Your task to perform on an android device: Open calendar and show me the first week of next month Image 0: 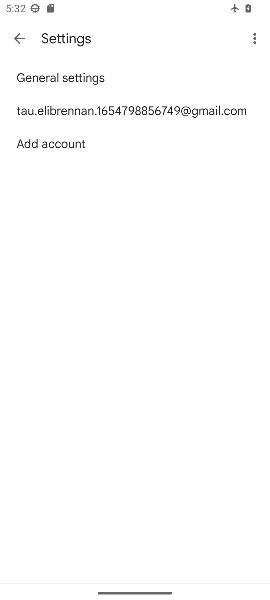
Step 0: press home button
Your task to perform on an android device: Open calendar and show me the first week of next month Image 1: 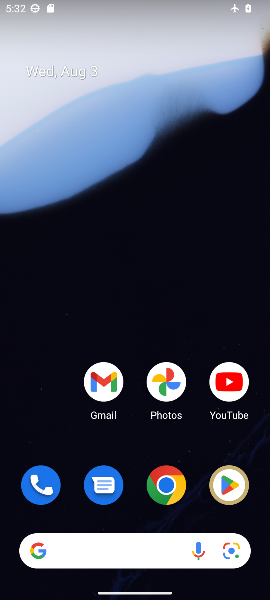
Step 1: drag from (141, 520) to (260, 11)
Your task to perform on an android device: Open calendar and show me the first week of next month Image 2: 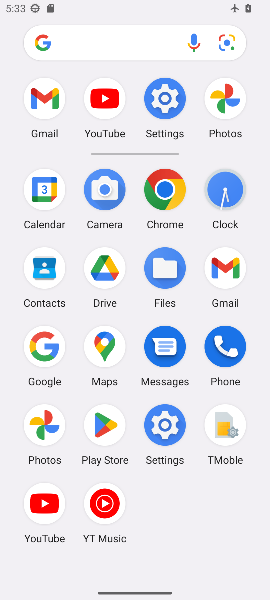
Step 2: click (41, 189)
Your task to perform on an android device: Open calendar and show me the first week of next month Image 3: 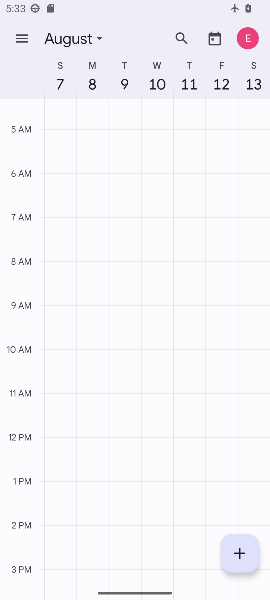
Step 3: drag from (93, 83) to (34, 52)
Your task to perform on an android device: Open calendar and show me the first week of next month Image 4: 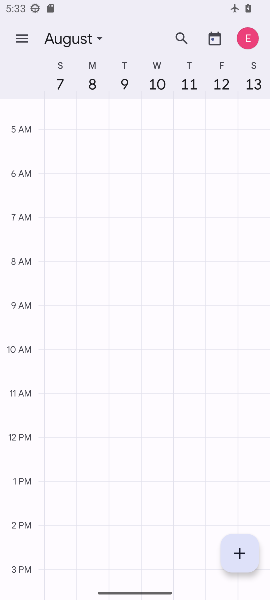
Step 4: drag from (255, 84) to (78, 63)
Your task to perform on an android device: Open calendar and show me the first week of next month Image 5: 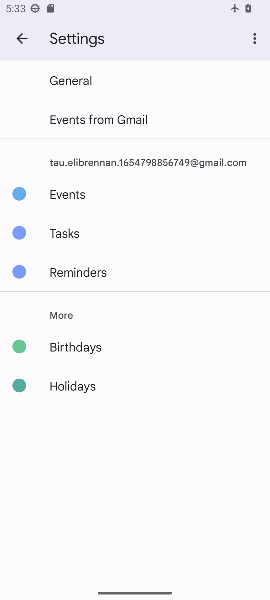
Step 5: click (2, 39)
Your task to perform on an android device: Open calendar and show me the first week of next month Image 6: 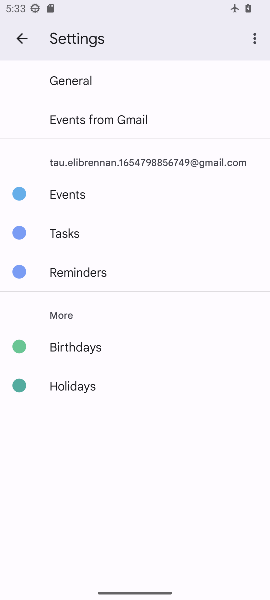
Step 6: click (22, 41)
Your task to perform on an android device: Open calendar and show me the first week of next month Image 7: 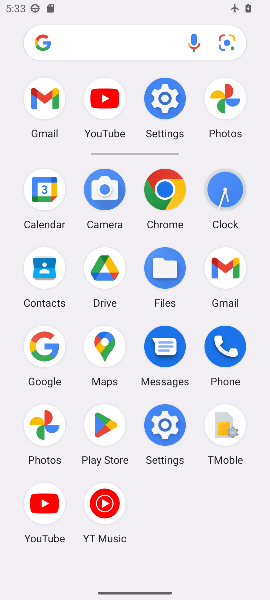
Step 7: click (23, 196)
Your task to perform on an android device: Open calendar and show me the first week of next month Image 8: 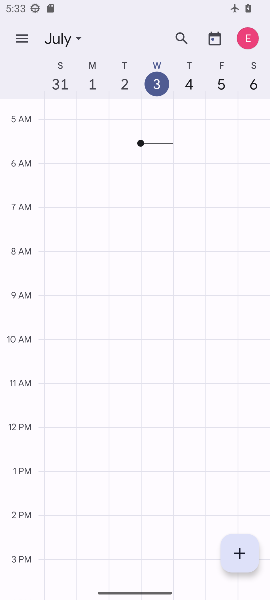
Step 8: task complete